Your task to perform on an android device: change timer sound Image 0: 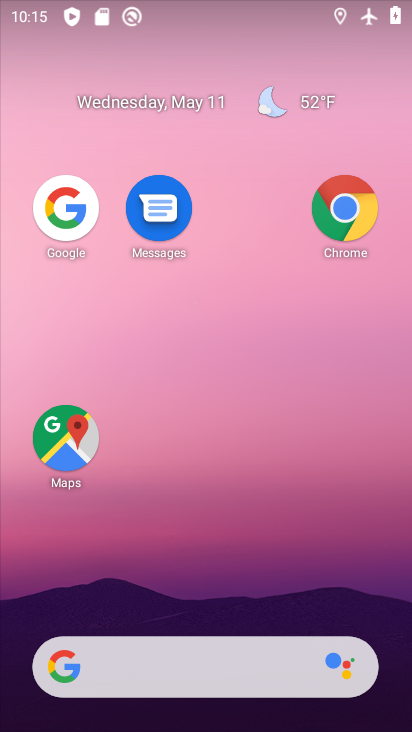
Step 0: drag from (213, 626) to (186, 138)
Your task to perform on an android device: change timer sound Image 1: 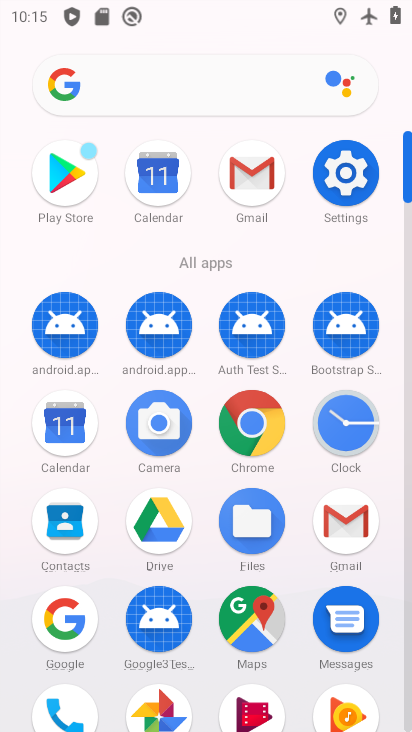
Step 1: click (338, 419)
Your task to perform on an android device: change timer sound Image 2: 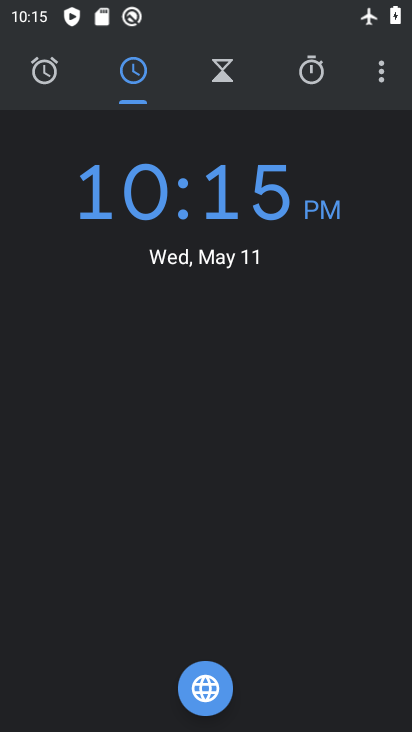
Step 2: click (369, 68)
Your task to perform on an android device: change timer sound Image 3: 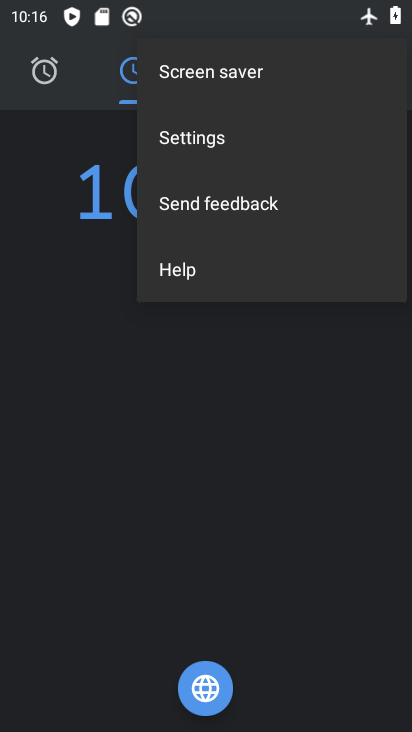
Step 3: click (186, 148)
Your task to perform on an android device: change timer sound Image 4: 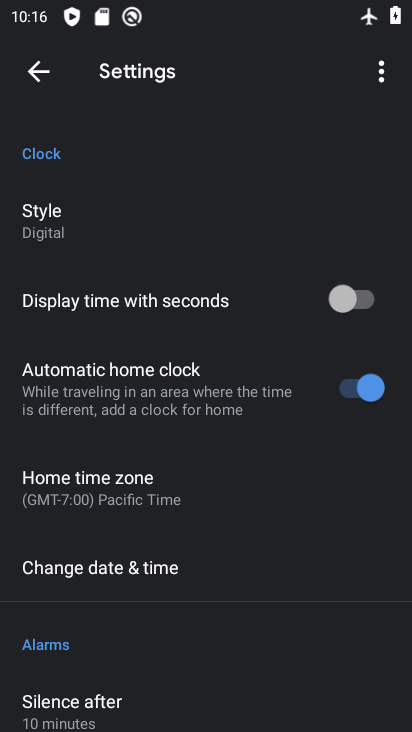
Step 4: drag from (214, 646) to (126, 198)
Your task to perform on an android device: change timer sound Image 5: 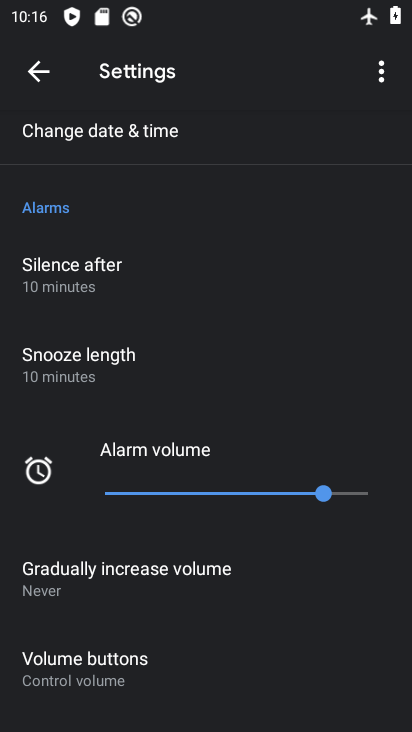
Step 5: drag from (176, 582) to (64, 141)
Your task to perform on an android device: change timer sound Image 6: 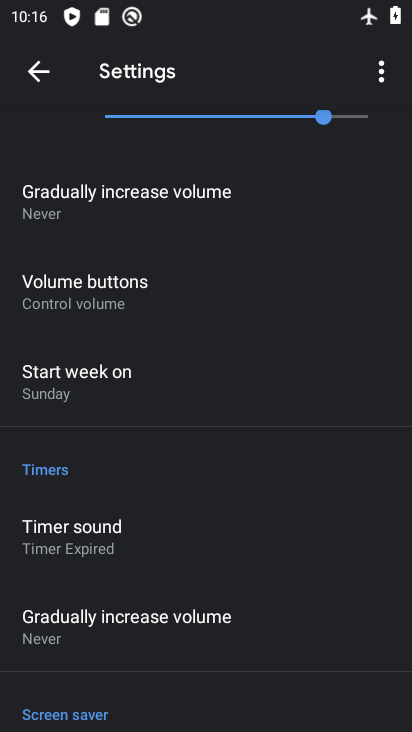
Step 6: click (84, 545)
Your task to perform on an android device: change timer sound Image 7: 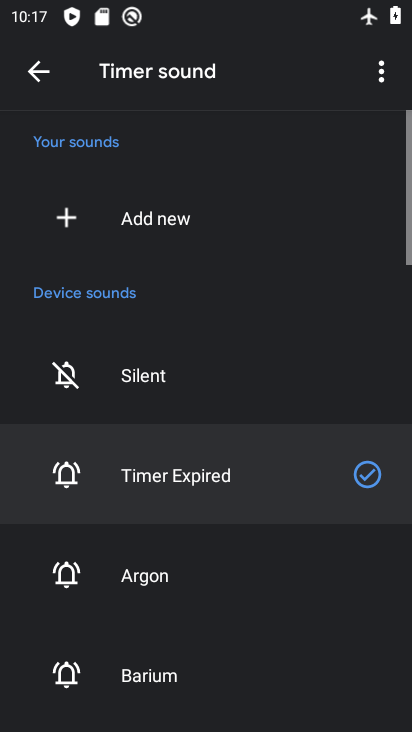
Step 7: click (158, 594)
Your task to perform on an android device: change timer sound Image 8: 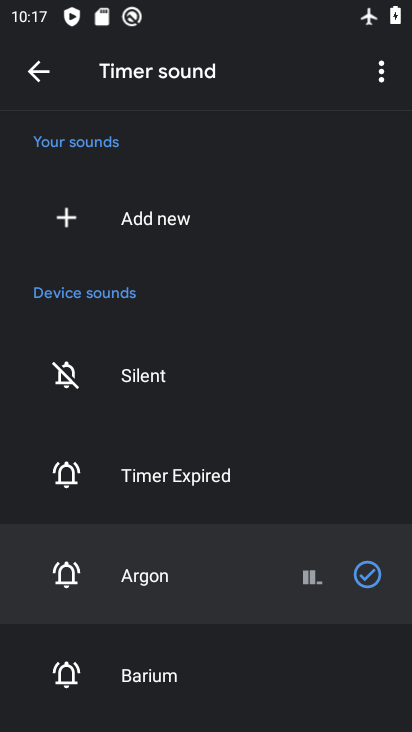
Step 8: task complete